Your task to perform on an android device: turn pop-ups off in chrome Image 0: 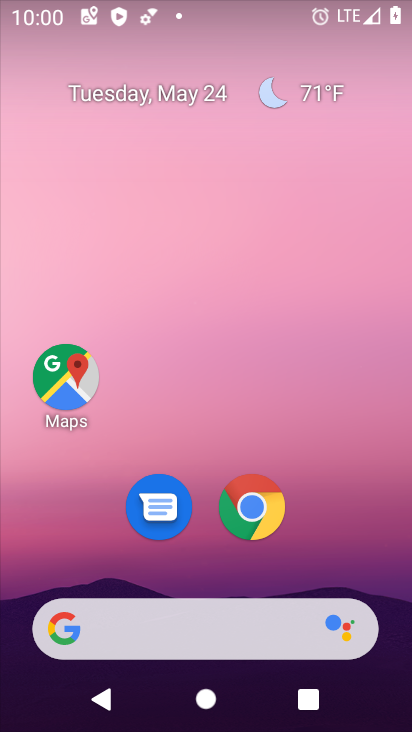
Step 0: click (249, 506)
Your task to perform on an android device: turn pop-ups off in chrome Image 1: 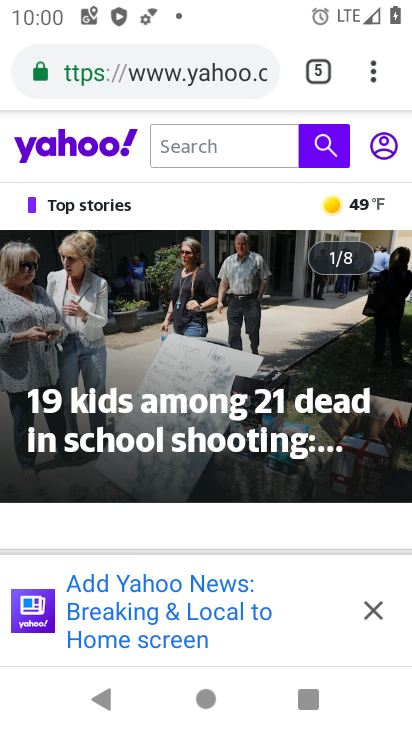
Step 1: click (373, 76)
Your task to perform on an android device: turn pop-ups off in chrome Image 2: 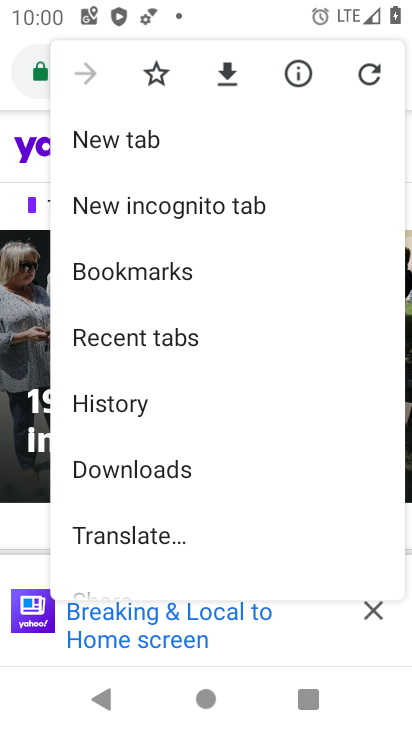
Step 2: drag from (193, 517) to (191, 136)
Your task to perform on an android device: turn pop-ups off in chrome Image 3: 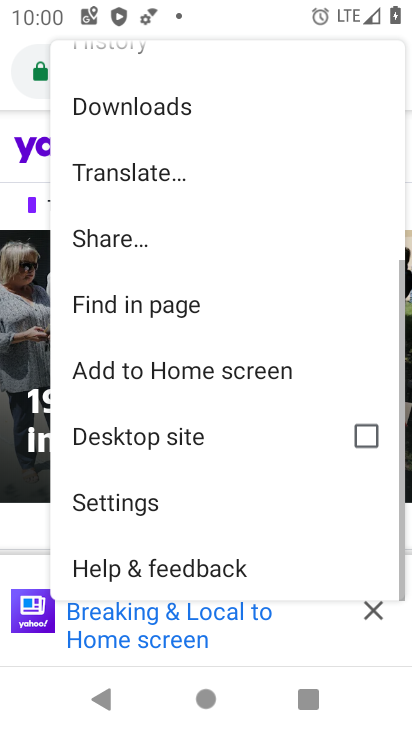
Step 3: click (157, 505)
Your task to perform on an android device: turn pop-ups off in chrome Image 4: 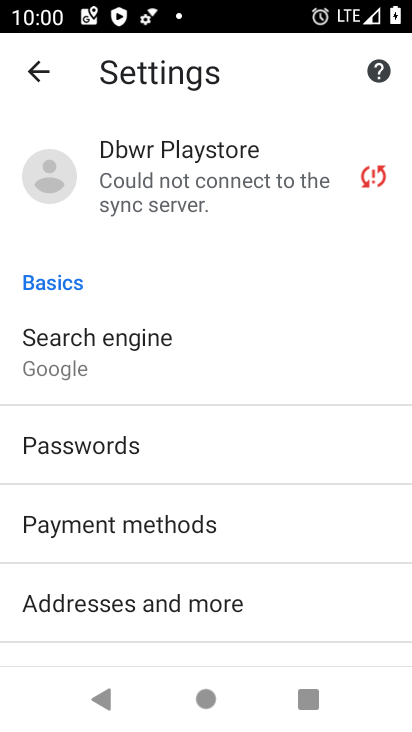
Step 4: drag from (160, 628) to (166, 278)
Your task to perform on an android device: turn pop-ups off in chrome Image 5: 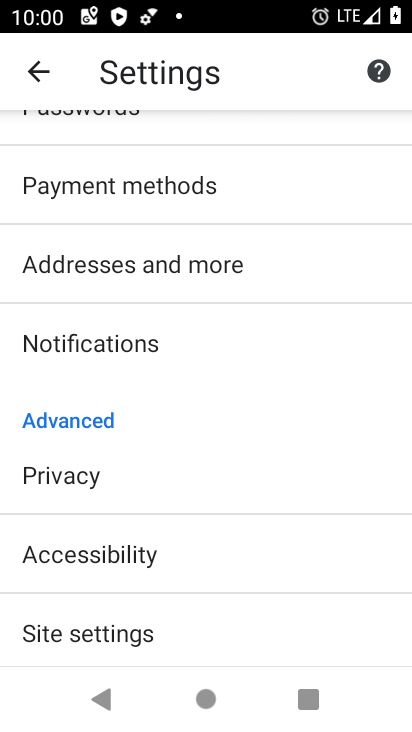
Step 5: drag from (160, 612) to (169, 269)
Your task to perform on an android device: turn pop-ups off in chrome Image 6: 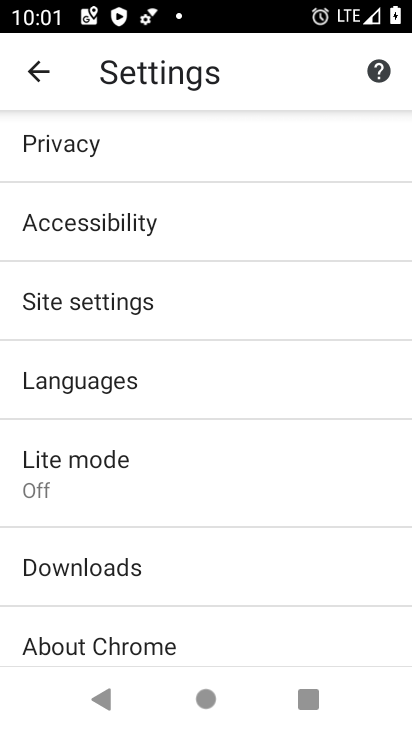
Step 6: click (115, 297)
Your task to perform on an android device: turn pop-ups off in chrome Image 7: 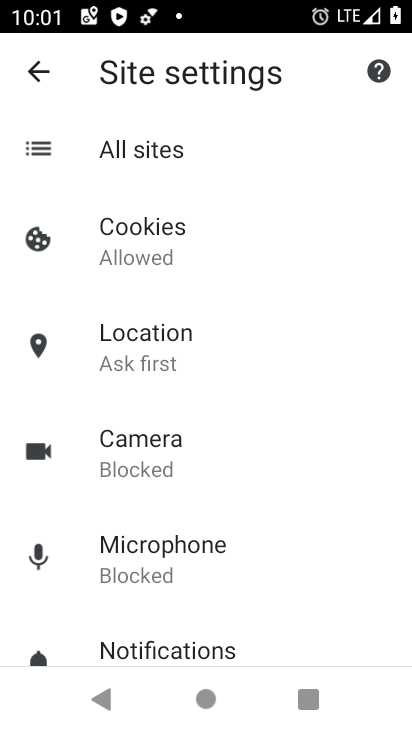
Step 7: drag from (164, 607) to (171, 338)
Your task to perform on an android device: turn pop-ups off in chrome Image 8: 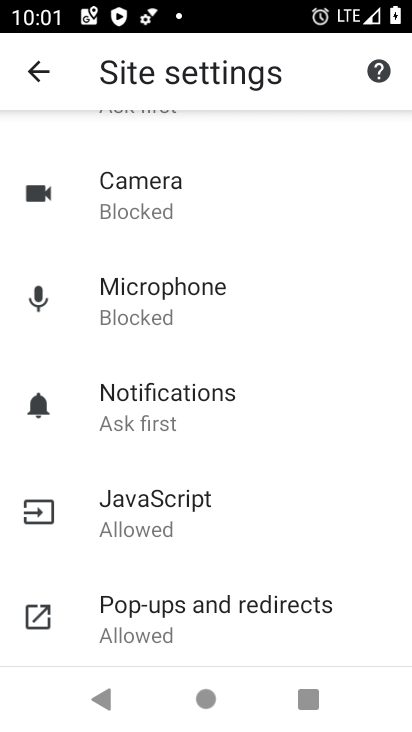
Step 8: drag from (159, 640) to (170, 372)
Your task to perform on an android device: turn pop-ups off in chrome Image 9: 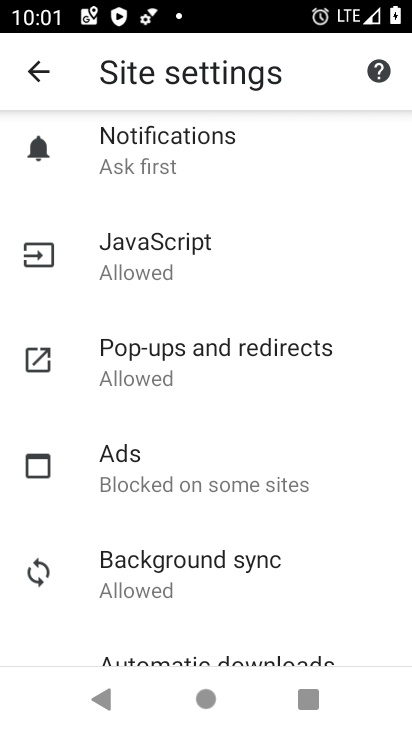
Step 9: click (165, 357)
Your task to perform on an android device: turn pop-ups off in chrome Image 10: 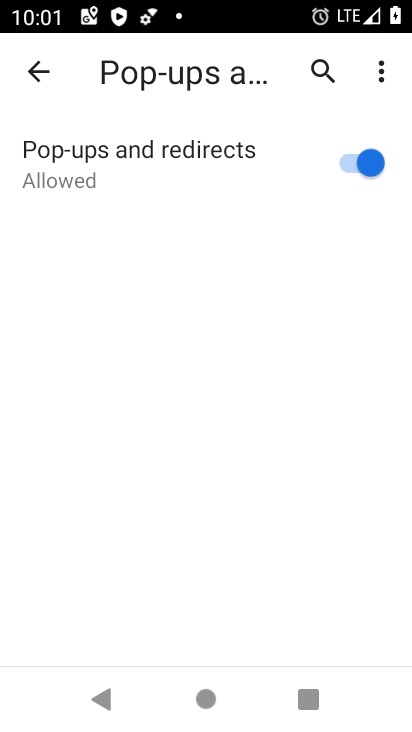
Step 10: click (351, 162)
Your task to perform on an android device: turn pop-ups off in chrome Image 11: 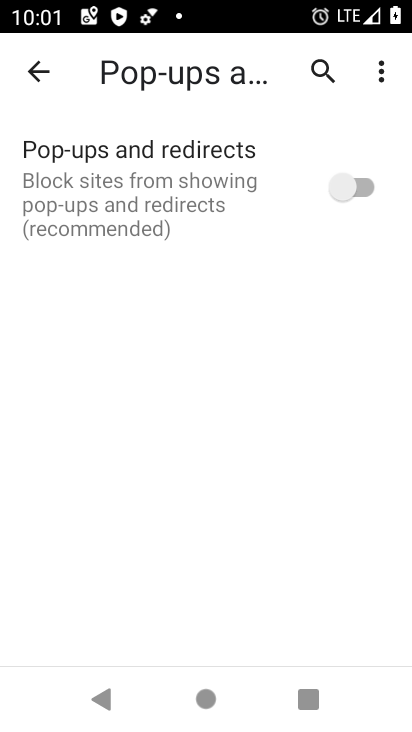
Step 11: task complete